Your task to perform on an android device: turn off improve location accuracy Image 0: 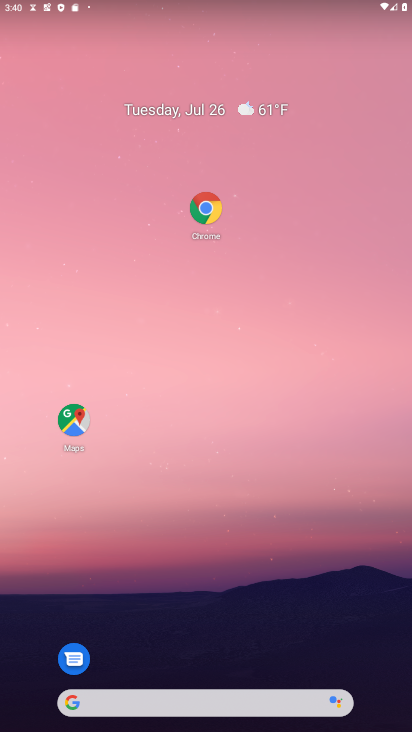
Step 0: drag from (168, 351) to (162, 239)
Your task to perform on an android device: turn off improve location accuracy Image 1: 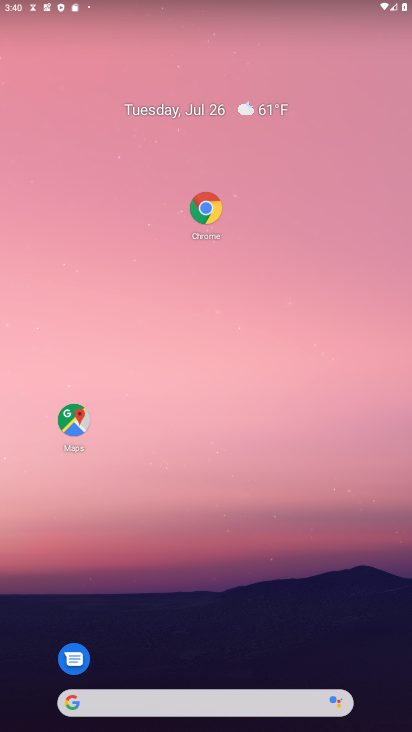
Step 1: drag from (178, 564) to (207, 121)
Your task to perform on an android device: turn off improve location accuracy Image 2: 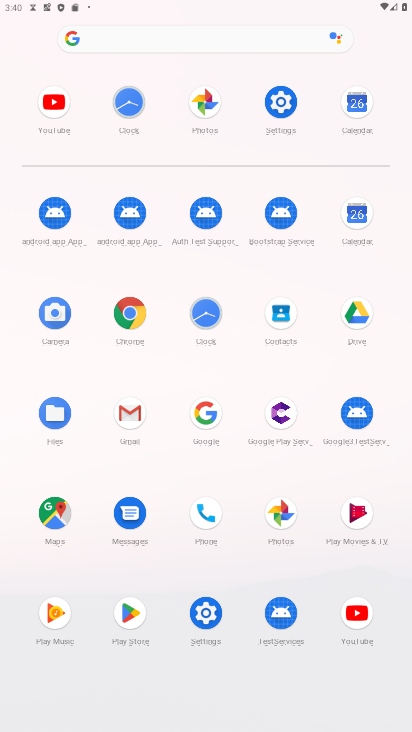
Step 2: click (282, 119)
Your task to perform on an android device: turn off improve location accuracy Image 3: 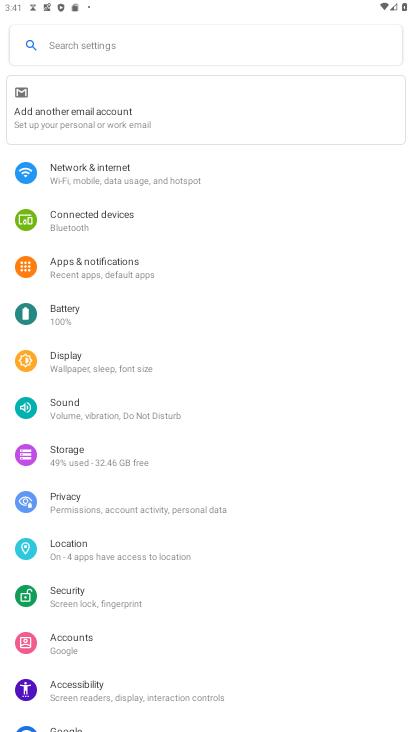
Step 3: click (68, 554)
Your task to perform on an android device: turn off improve location accuracy Image 4: 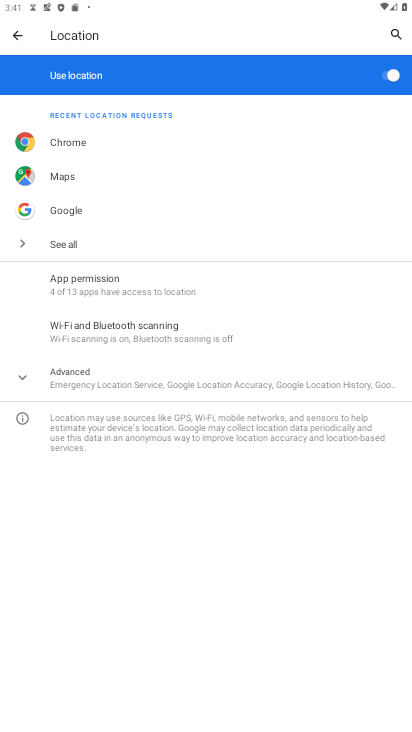
Step 4: click (63, 387)
Your task to perform on an android device: turn off improve location accuracy Image 5: 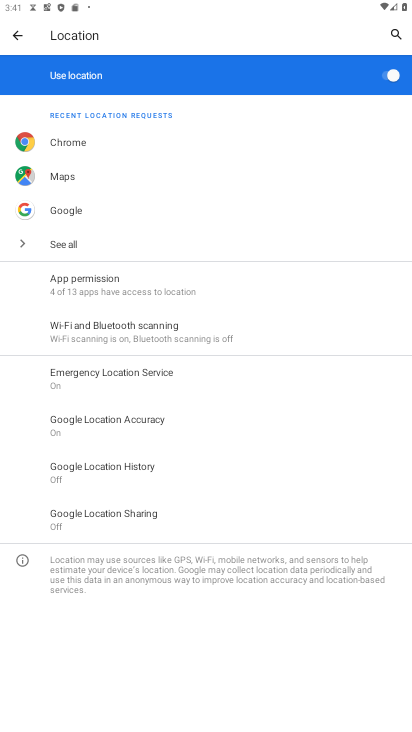
Step 5: click (109, 418)
Your task to perform on an android device: turn off improve location accuracy Image 6: 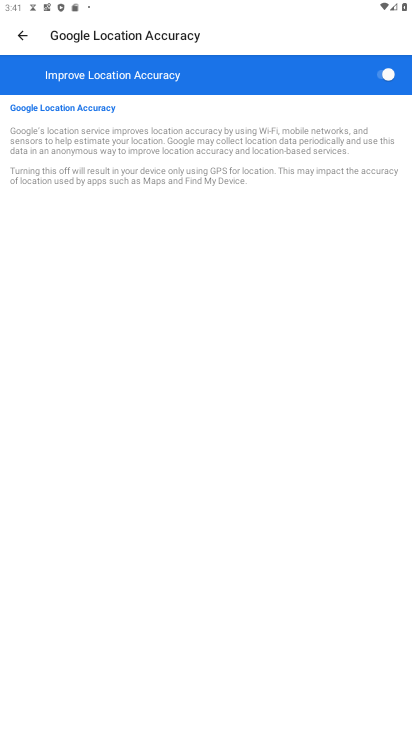
Step 6: click (377, 78)
Your task to perform on an android device: turn off improve location accuracy Image 7: 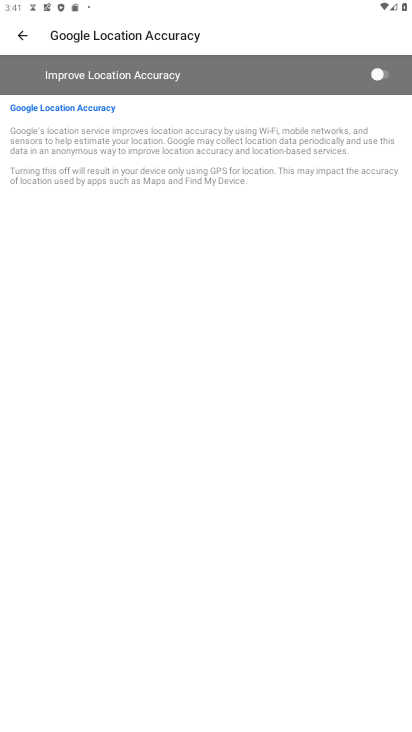
Step 7: task complete